Your task to perform on an android device: Is it going to rain today? Image 0: 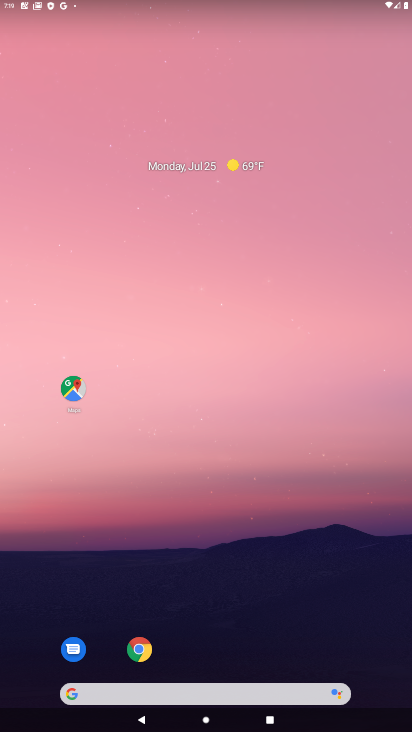
Step 0: drag from (292, 385) to (347, 0)
Your task to perform on an android device: Is it going to rain today? Image 1: 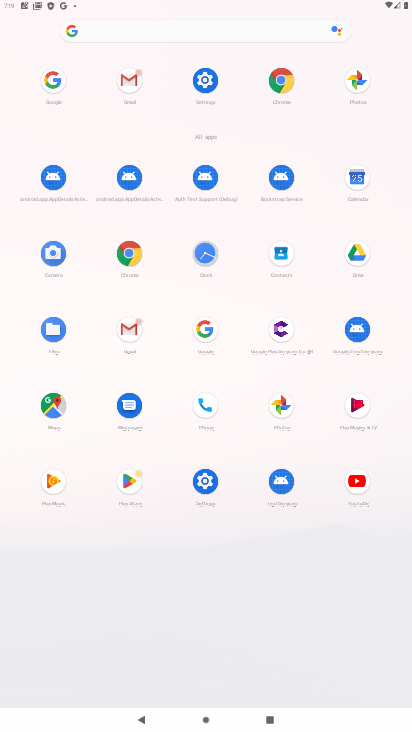
Step 1: click (216, 339)
Your task to perform on an android device: Is it going to rain today? Image 2: 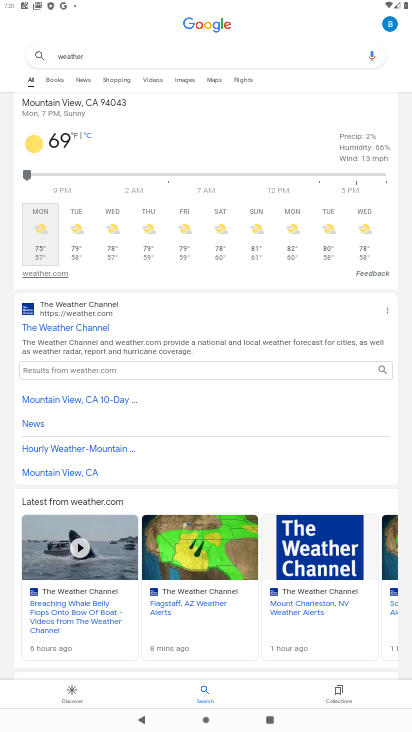
Step 2: task complete